Your task to perform on an android device: Go to Android settings Image 0: 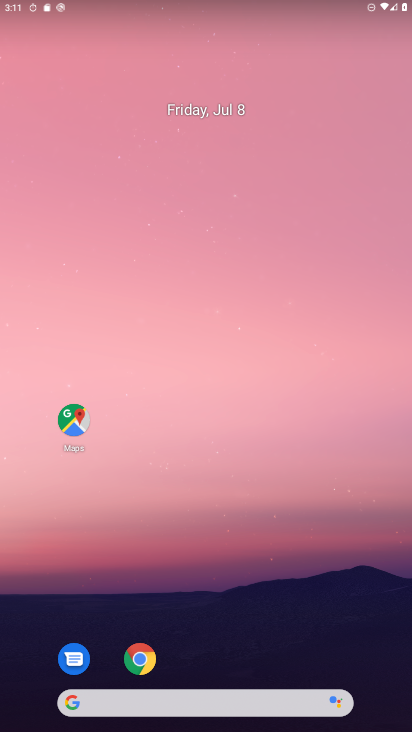
Step 0: drag from (246, 626) to (219, 51)
Your task to perform on an android device: Go to Android settings Image 1: 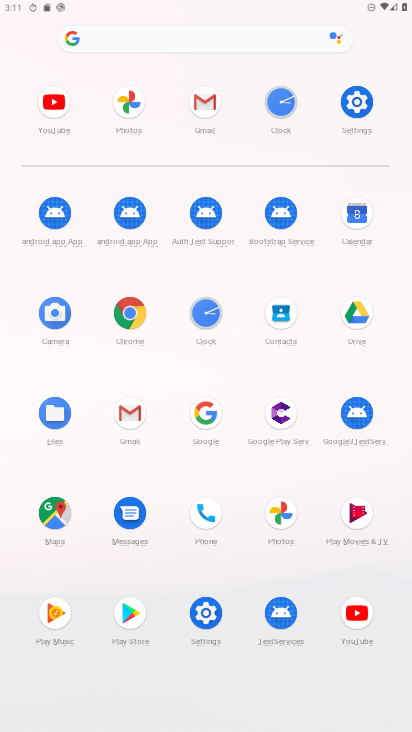
Step 1: click (357, 95)
Your task to perform on an android device: Go to Android settings Image 2: 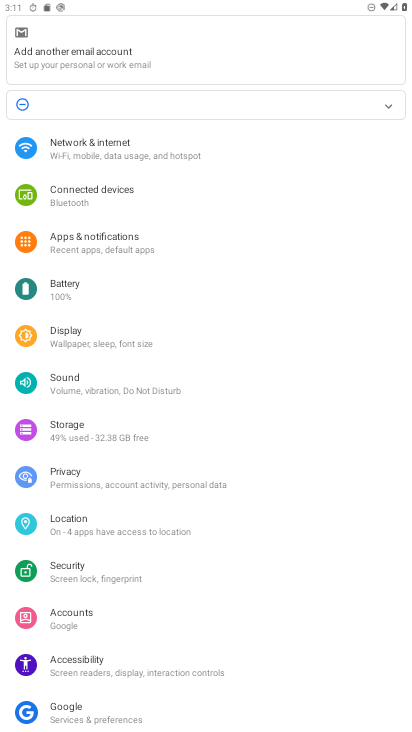
Step 2: drag from (155, 670) to (155, 263)
Your task to perform on an android device: Go to Android settings Image 3: 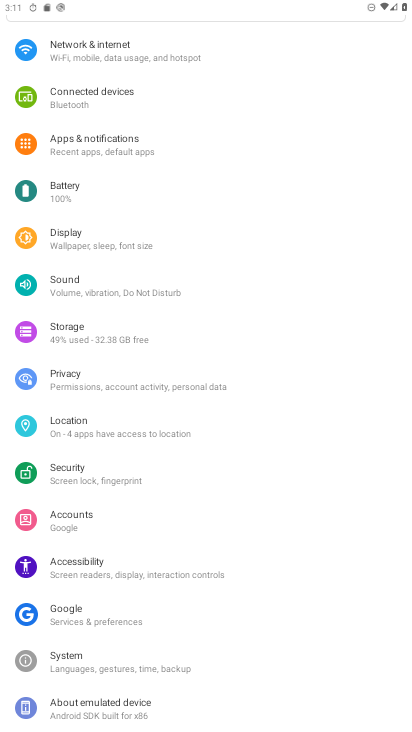
Step 3: click (92, 662)
Your task to perform on an android device: Go to Android settings Image 4: 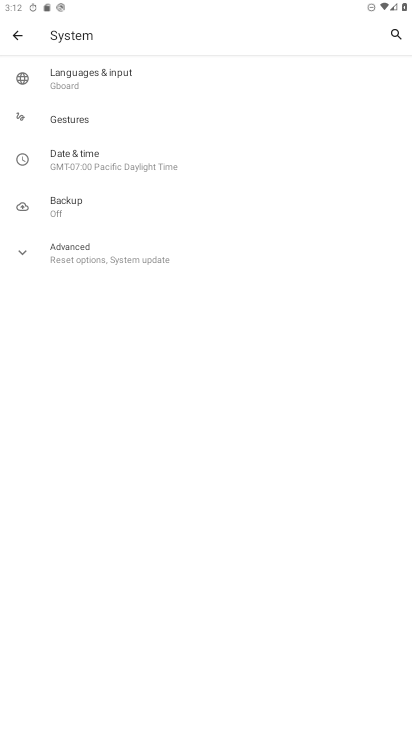
Step 4: task complete